Your task to perform on an android device: turn on location history Image 0: 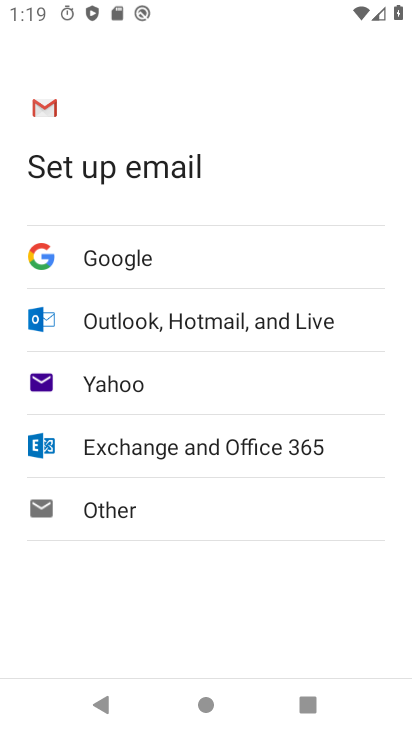
Step 0: press home button
Your task to perform on an android device: turn on location history Image 1: 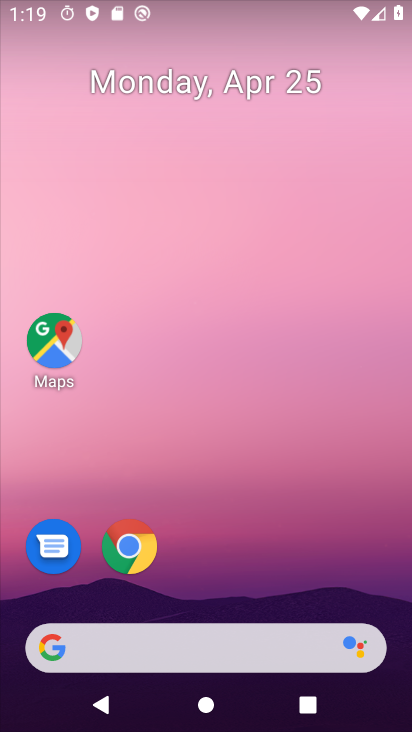
Step 1: drag from (220, 604) to (203, 10)
Your task to perform on an android device: turn on location history Image 2: 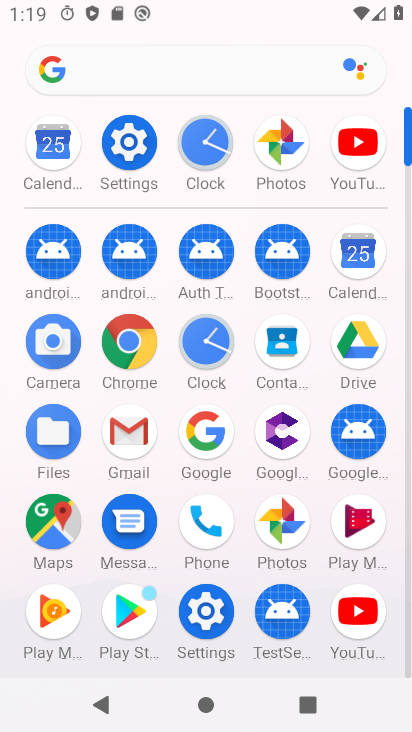
Step 2: click (124, 143)
Your task to perform on an android device: turn on location history Image 3: 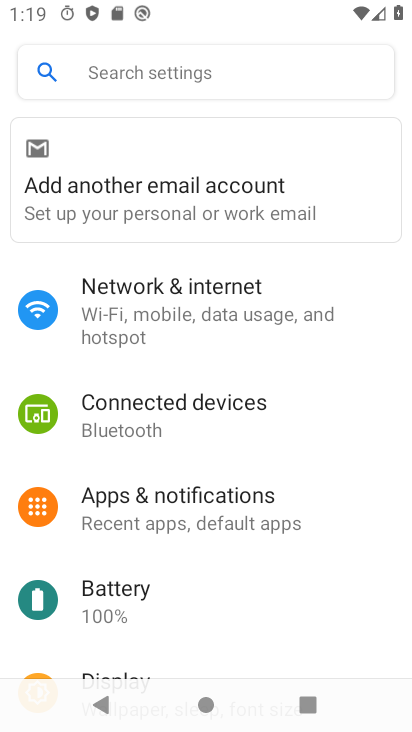
Step 3: drag from (193, 562) to (195, 236)
Your task to perform on an android device: turn on location history Image 4: 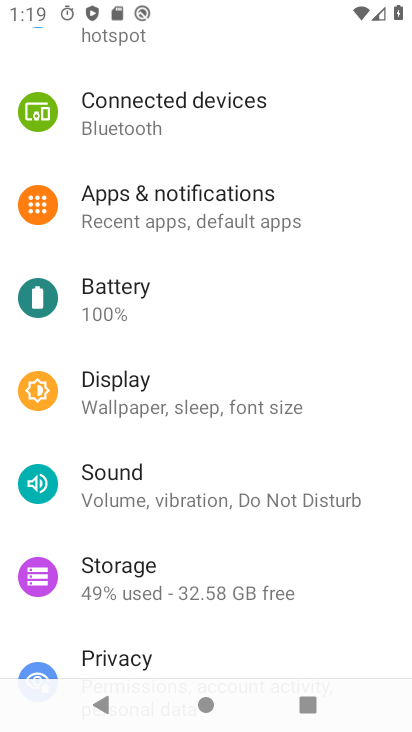
Step 4: drag from (172, 650) to (174, 261)
Your task to perform on an android device: turn on location history Image 5: 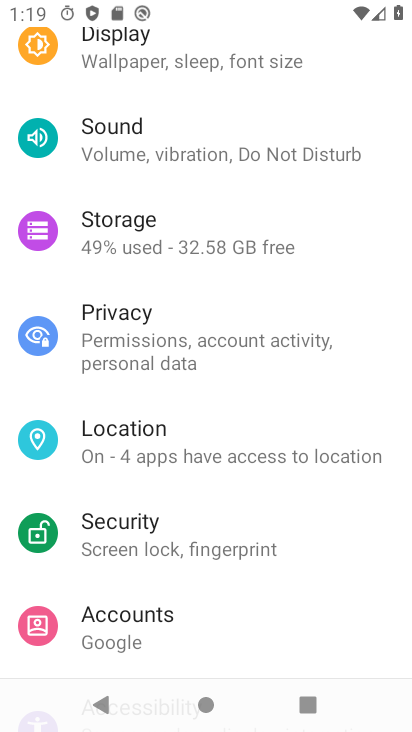
Step 5: click (124, 441)
Your task to perform on an android device: turn on location history Image 6: 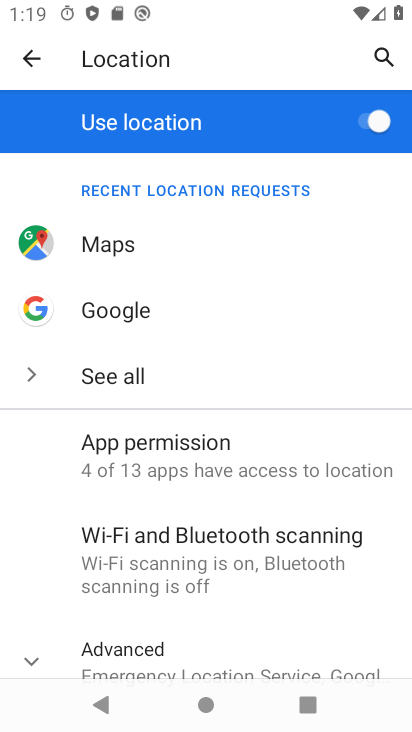
Step 6: click (149, 641)
Your task to perform on an android device: turn on location history Image 7: 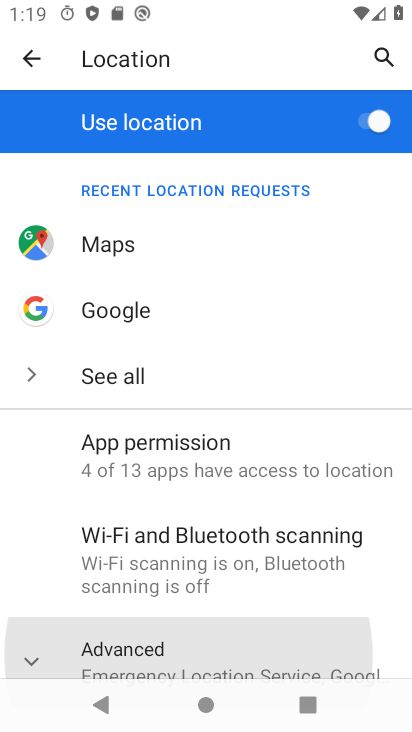
Step 7: drag from (148, 642) to (99, 134)
Your task to perform on an android device: turn on location history Image 8: 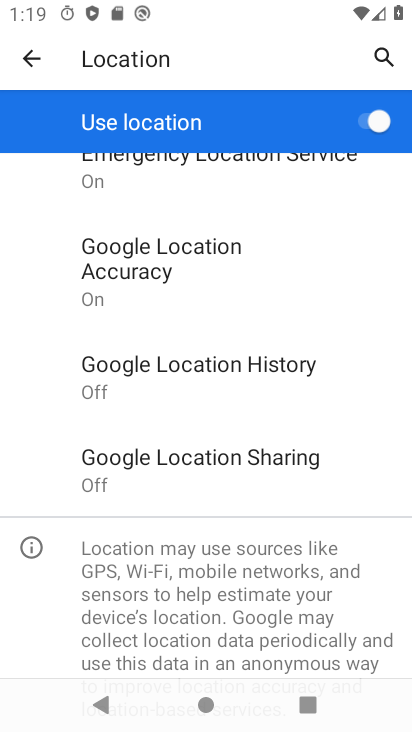
Step 8: click (192, 373)
Your task to perform on an android device: turn on location history Image 9: 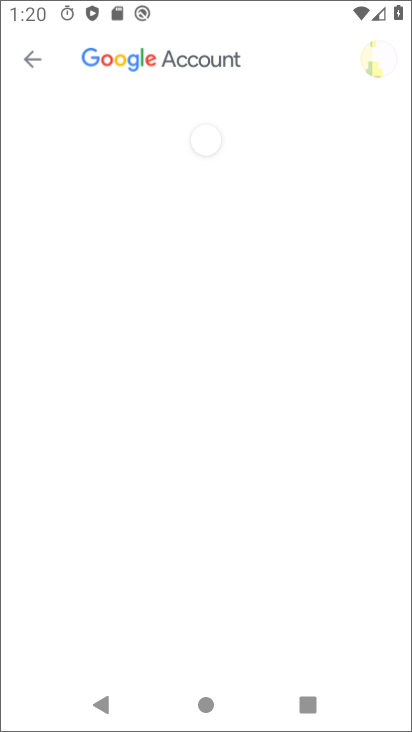
Step 9: drag from (248, 603) to (184, 290)
Your task to perform on an android device: turn on location history Image 10: 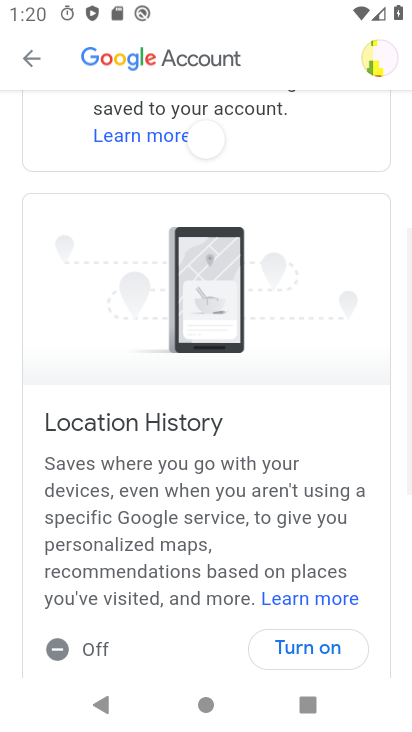
Step 10: drag from (209, 621) to (172, 288)
Your task to perform on an android device: turn on location history Image 11: 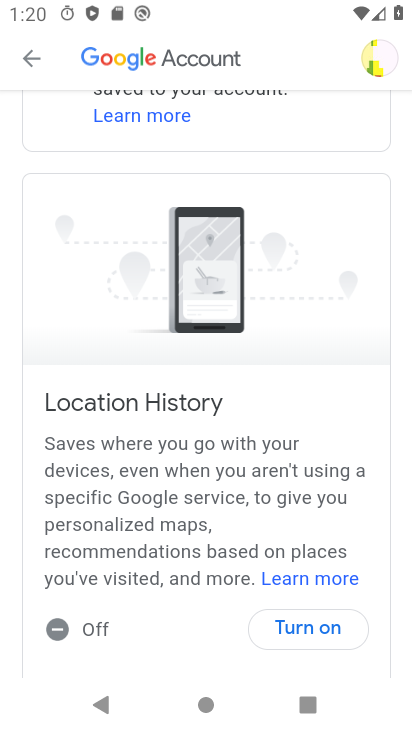
Step 11: click (319, 626)
Your task to perform on an android device: turn on location history Image 12: 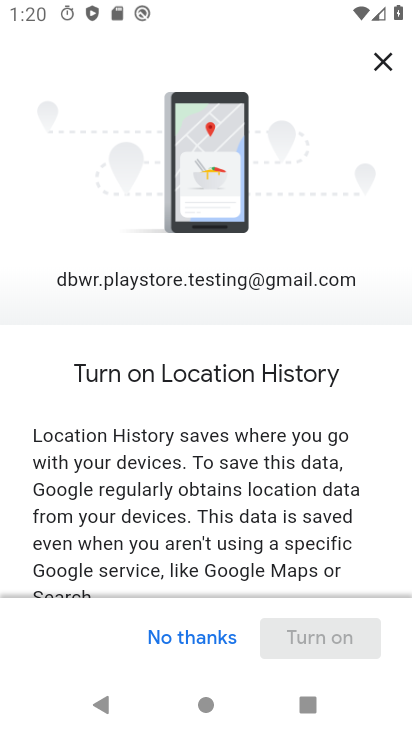
Step 12: drag from (288, 453) to (233, 49)
Your task to perform on an android device: turn on location history Image 13: 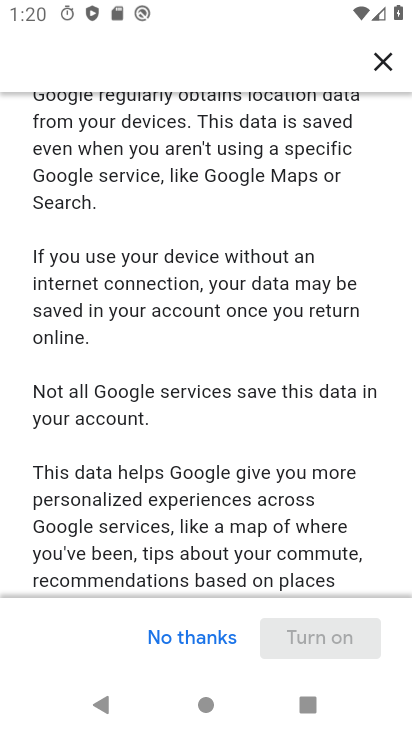
Step 13: drag from (270, 534) to (221, 4)
Your task to perform on an android device: turn on location history Image 14: 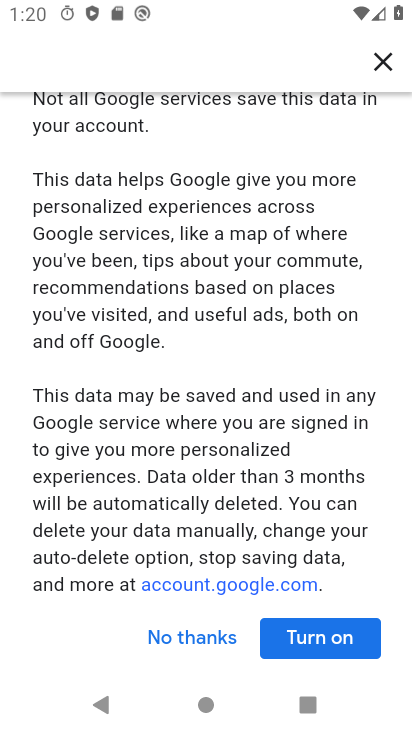
Step 14: click (289, 637)
Your task to perform on an android device: turn on location history Image 15: 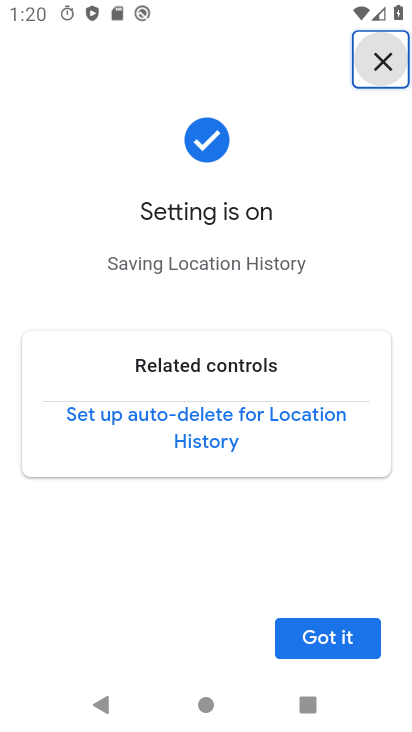
Step 15: click (303, 638)
Your task to perform on an android device: turn on location history Image 16: 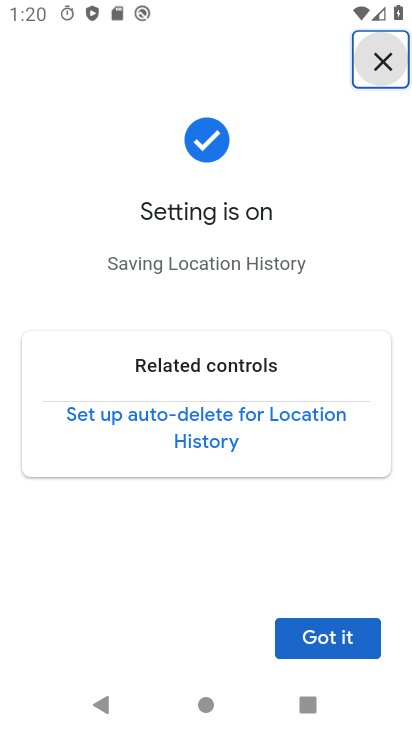
Step 16: task complete